Your task to perform on an android device: check out phone information Image 0: 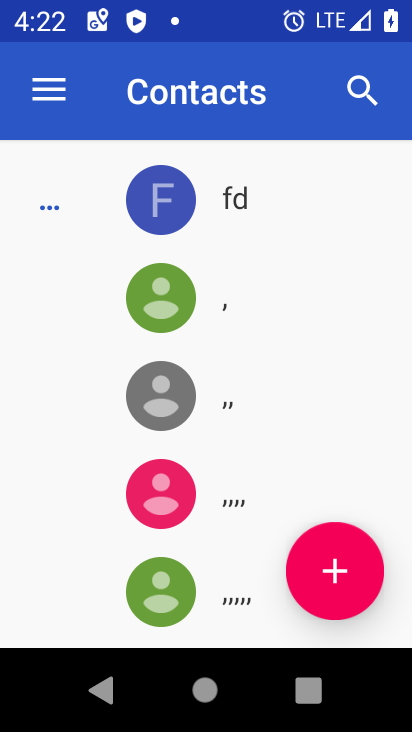
Step 0: press home button
Your task to perform on an android device: check out phone information Image 1: 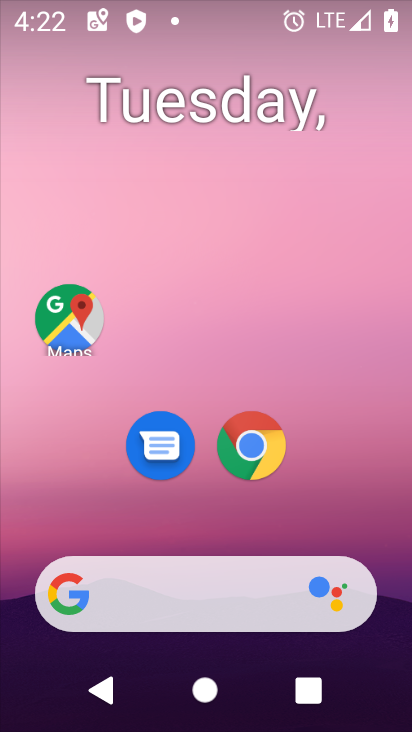
Step 1: drag from (350, 535) to (411, 182)
Your task to perform on an android device: check out phone information Image 2: 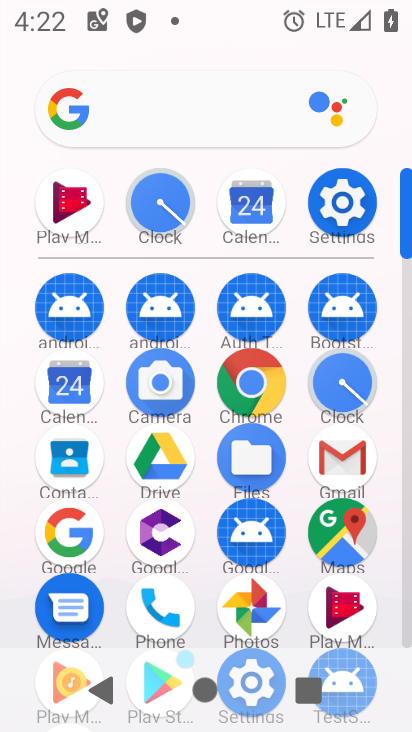
Step 2: click (349, 223)
Your task to perform on an android device: check out phone information Image 3: 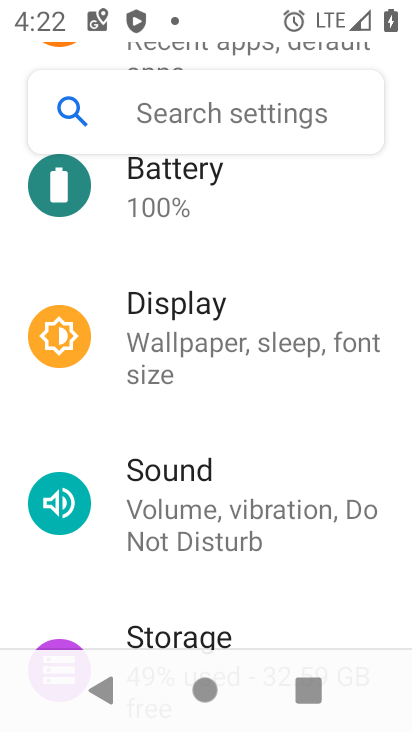
Step 3: drag from (335, 564) to (381, 173)
Your task to perform on an android device: check out phone information Image 4: 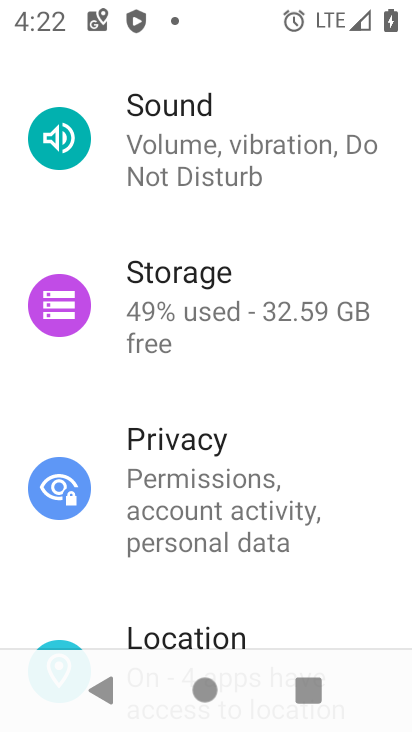
Step 4: drag from (180, 591) to (276, 77)
Your task to perform on an android device: check out phone information Image 5: 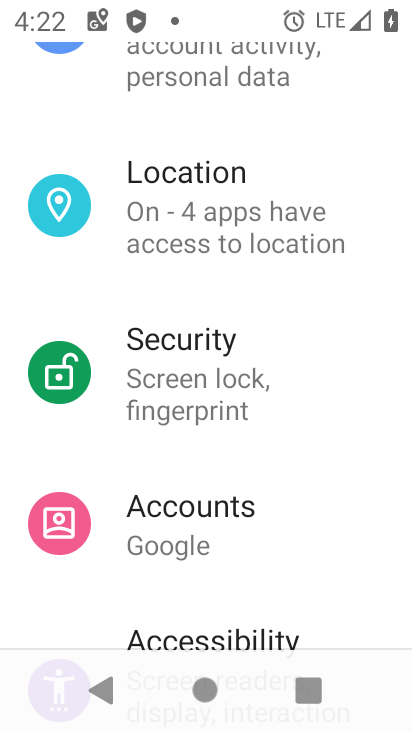
Step 5: drag from (304, 594) to (354, 151)
Your task to perform on an android device: check out phone information Image 6: 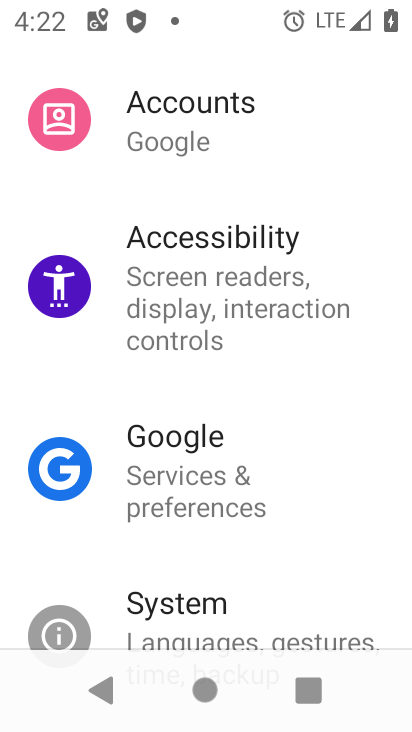
Step 6: drag from (201, 548) to (337, 241)
Your task to perform on an android device: check out phone information Image 7: 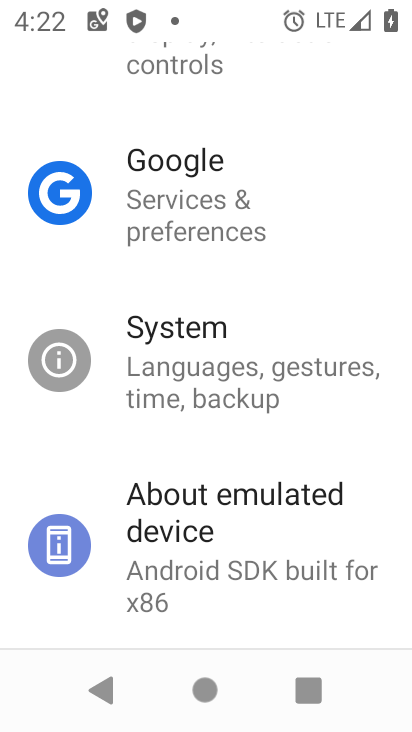
Step 7: click (224, 571)
Your task to perform on an android device: check out phone information Image 8: 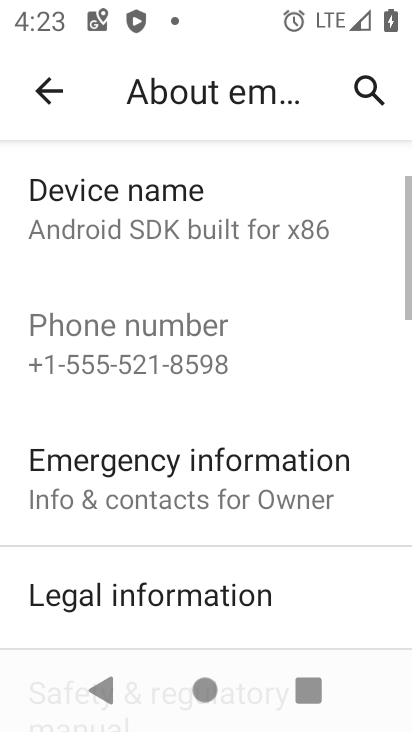
Step 8: task complete